Your task to perform on an android device: find snoozed emails in the gmail app Image 0: 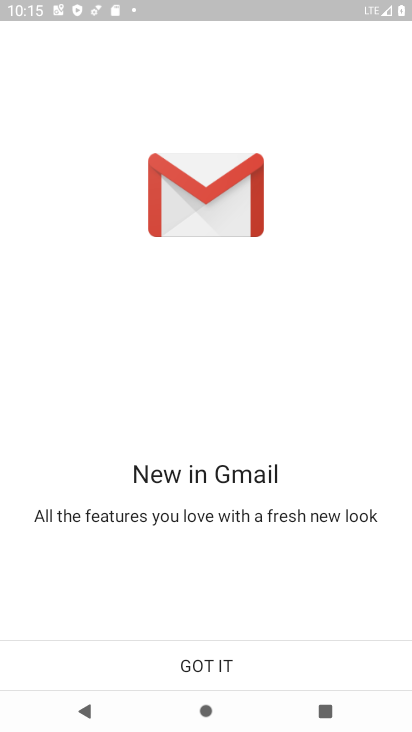
Step 0: click (241, 674)
Your task to perform on an android device: find snoozed emails in the gmail app Image 1: 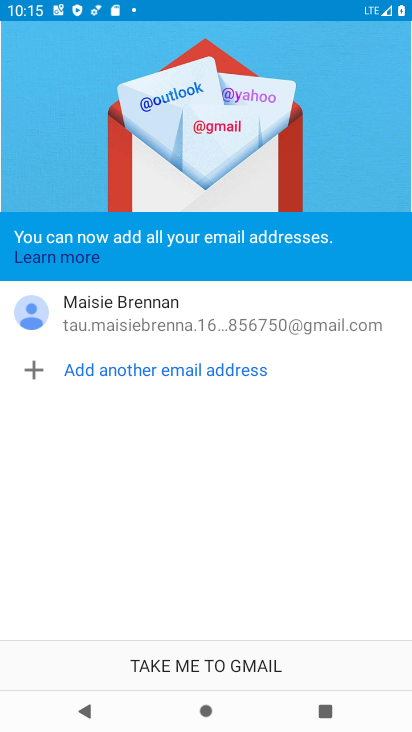
Step 1: click (242, 669)
Your task to perform on an android device: find snoozed emails in the gmail app Image 2: 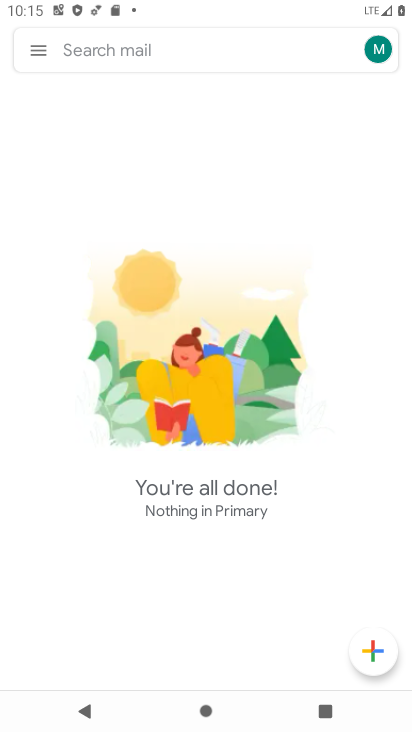
Step 2: click (34, 54)
Your task to perform on an android device: find snoozed emails in the gmail app Image 3: 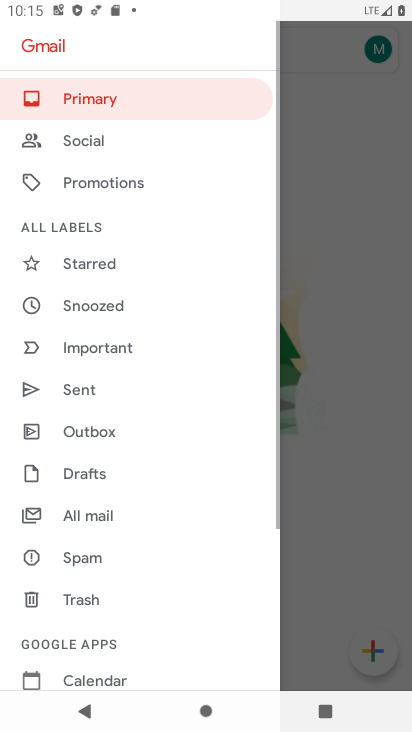
Step 3: drag from (116, 636) to (132, 313)
Your task to perform on an android device: find snoozed emails in the gmail app Image 4: 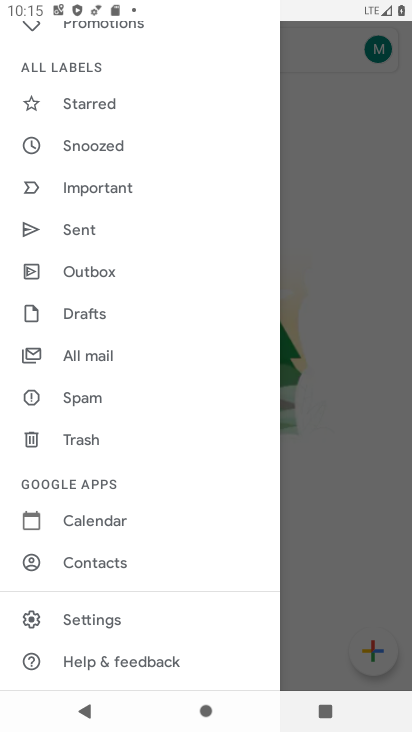
Step 4: click (114, 621)
Your task to perform on an android device: find snoozed emails in the gmail app Image 5: 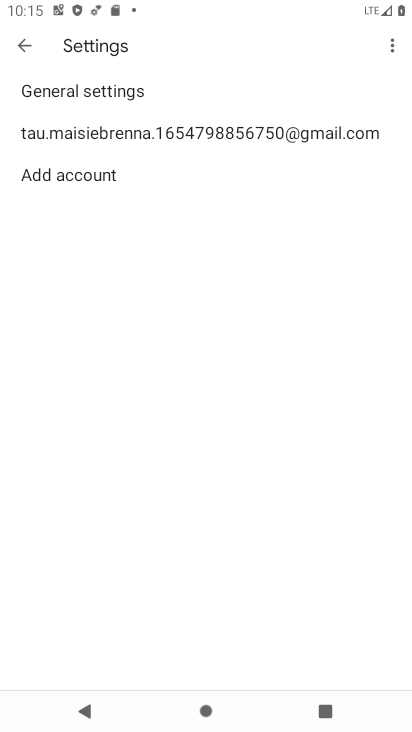
Step 5: click (18, 42)
Your task to perform on an android device: find snoozed emails in the gmail app Image 6: 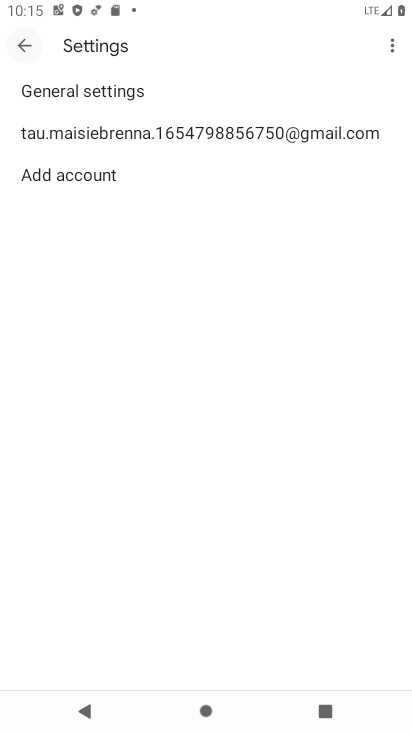
Step 6: click (19, 44)
Your task to perform on an android device: find snoozed emails in the gmail app Image 7: 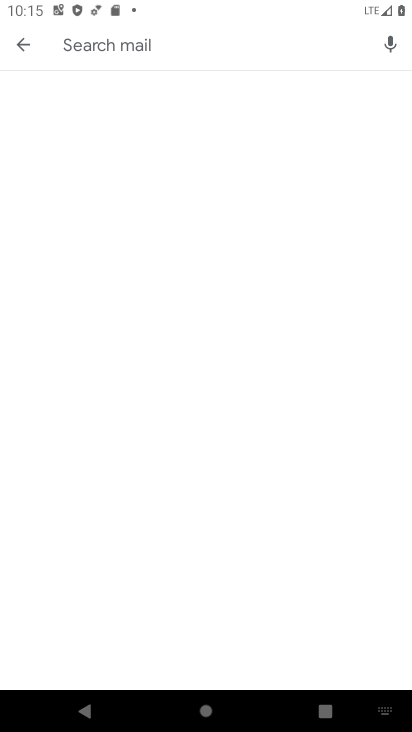
Step 7: click (22, 36)
Your task to perform on an android device: find snoozed emails in the gmail app Image 8: 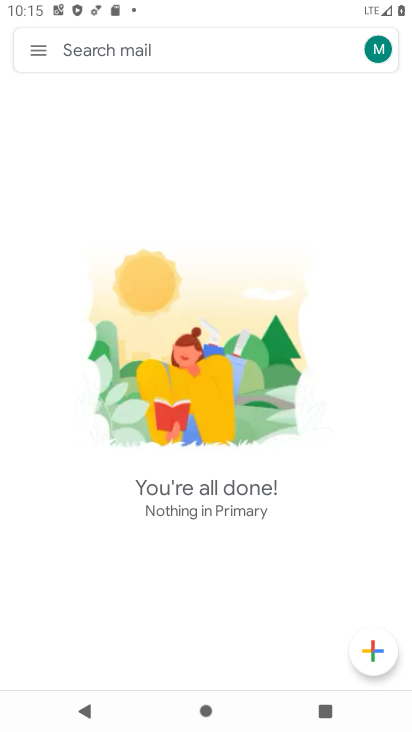
Step 8: click (39, 54)
Your task to perform on an android device: find snoozed emails in the gmail app Image 9: 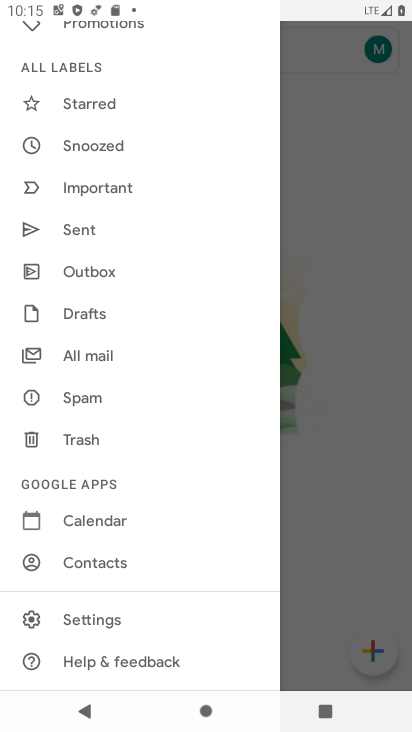
Step 9: drag from (136, 258) to (169, 478)
Your task to perform on an android device: find snoozed emails in the gmail app Image 10: 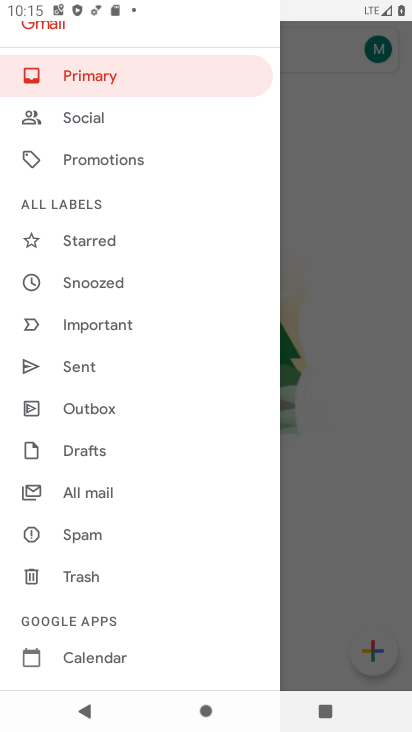
Step 10: click (99, 282)
Your task to perform on an android device: find snoozed emails in the gmail app Image 11: 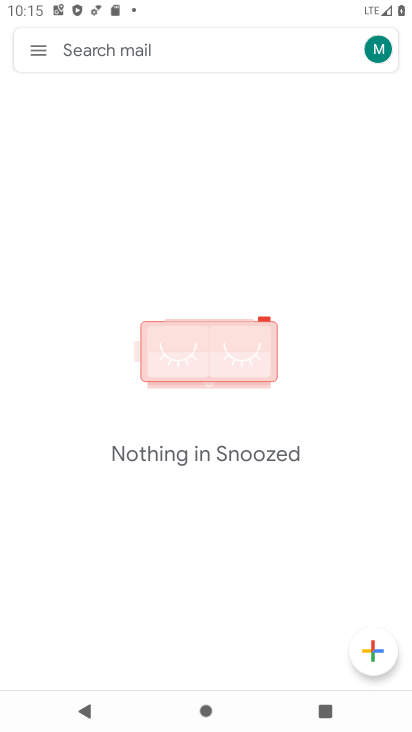
Step 11: task complete